Your task to perform on an android device: What's the weather going to be this weekend? Image 0: 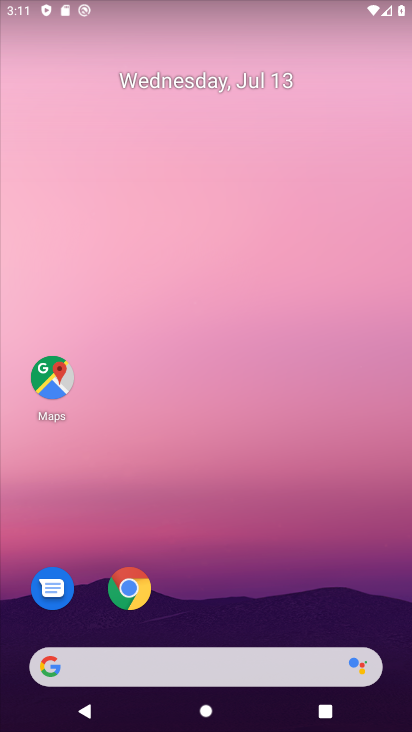
Step 0: drag from (309, 541) to (170, 169)
Your task to perform on an android device: What's the weather going to be this weekend? Image 1: 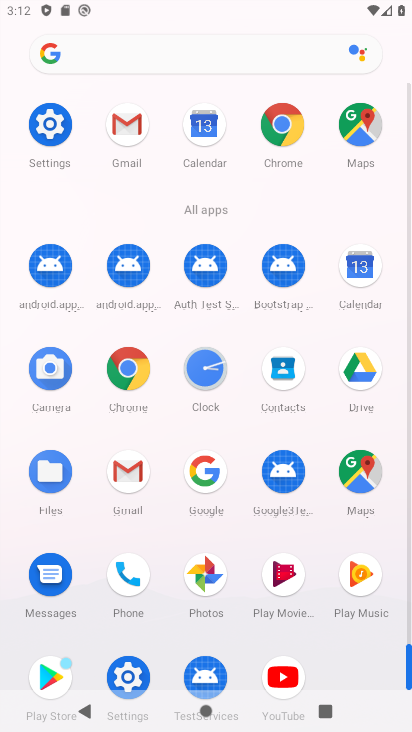
Step 1: click (275, 118)
Your task to perform on an android device: What's the weather going to be this weekend? Image 2: 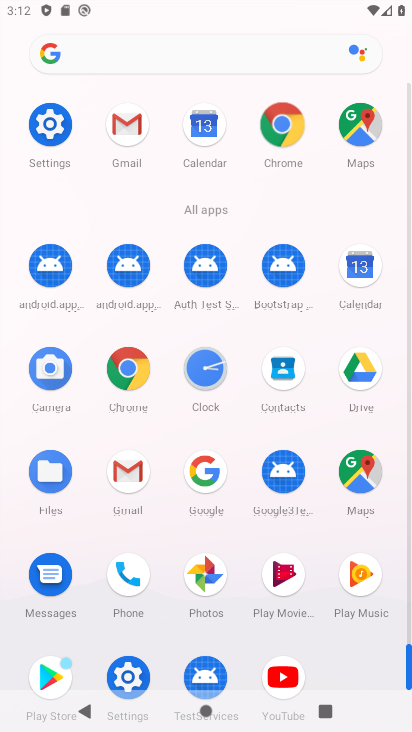
Step 2: click (282, 119)
Your task to perform on an android device: What's the weather going to be this weekend? Image 3: 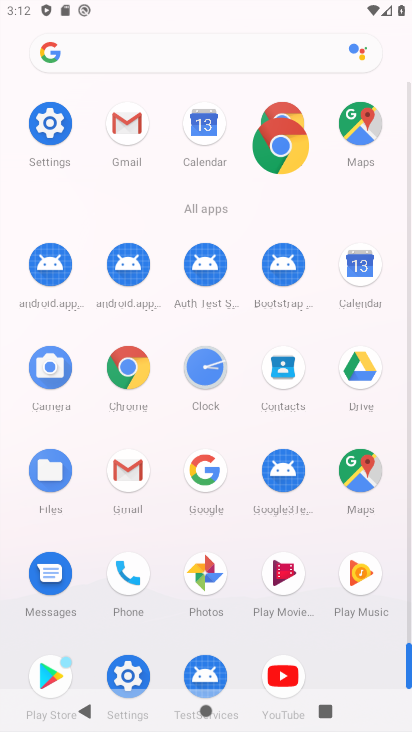
Step 3: click (282, 134)
Your task to perform on an android device: What's the weather going to be this weekend? Image 4: 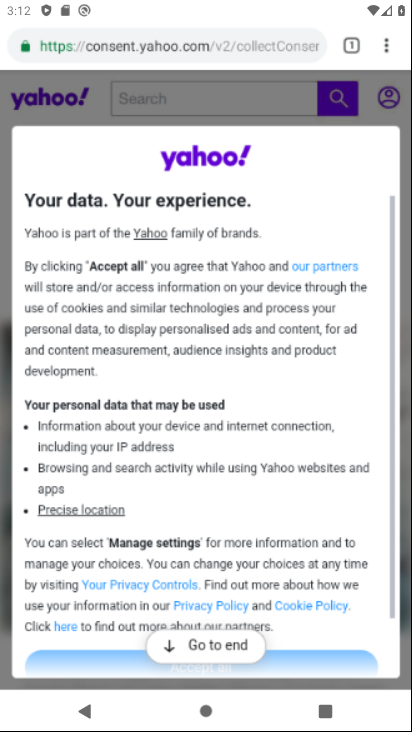
Step 4: click (283, 133)
Your task to perform on an android device: What's the weather going to be this weekend? Image 5: 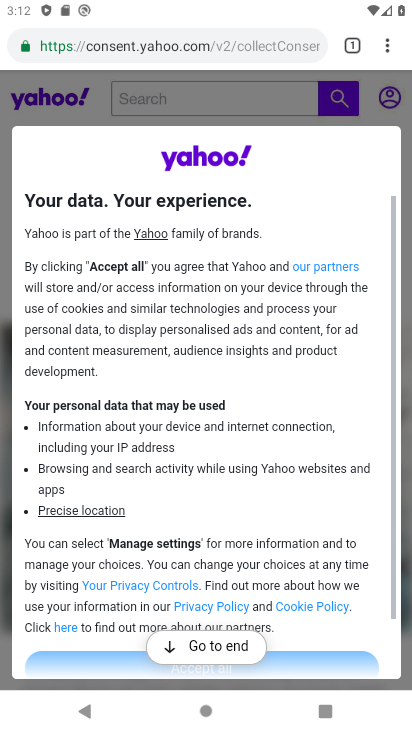
Step 5: drag from (384, 48) to (211, 87)
Your task to perform on an android device: What's the weather going to be this weekend? Image 6: 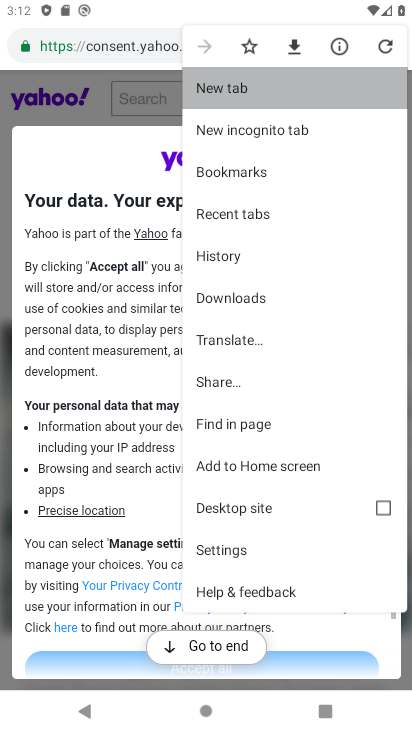
Step 6: click (212, 87)
Your task to perform on an android device: What's the weather going to be this weekend? Image 7: 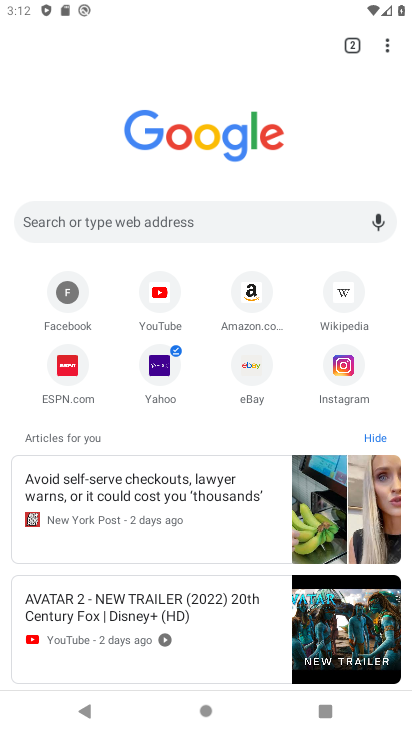
Step 7: click (145, 216)
Your task to perform on an android device: What's the weather going to be this weekend? Image 8: 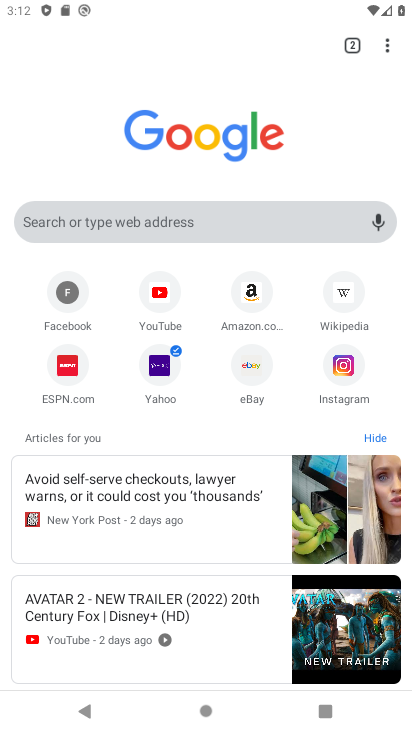
Step 8: click (143, 210)
Your task to perform on an android device: What's the weather going to be this weekend? Image 9: 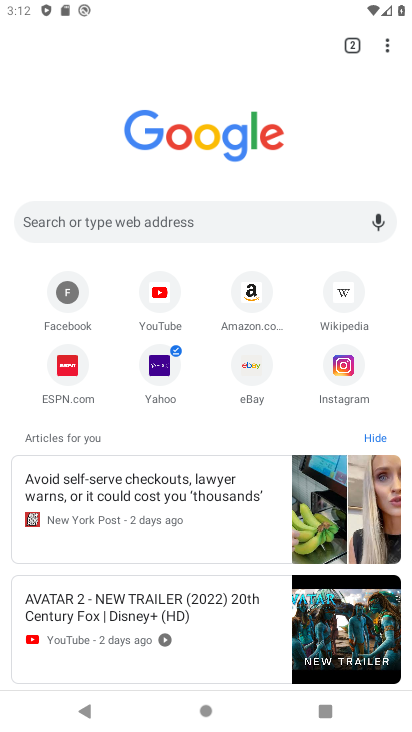
Step 9: type "what's the weathewr going to be this weekend"
Your task to perform on an android device: What's the weather going to be this weekend? Image 10: 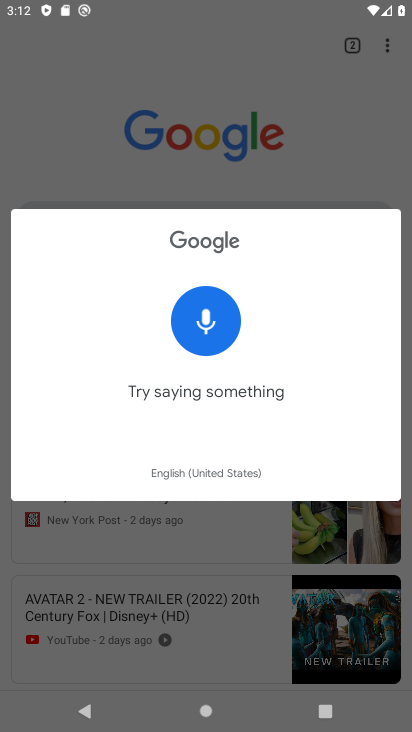
Step 10: click (56, 193)
Your task to perform on an android device: What's the weather going to be this weekend? Image 11: 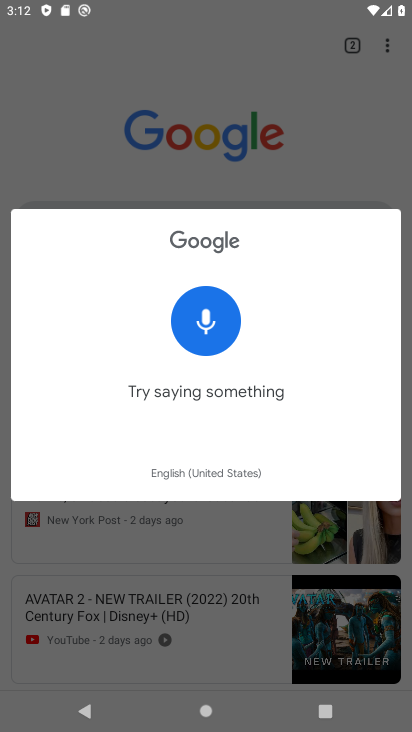
Step 11: click (56, 193)
Your task to perform on an android device: What's the weather going to be this weekend? Image 12: 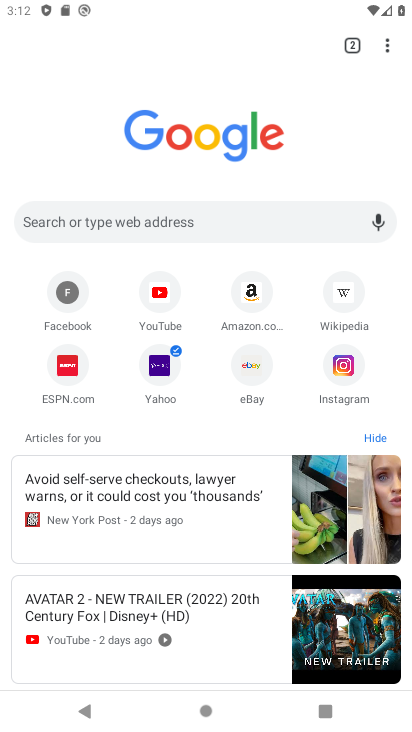
Step 12: click (95, 200)
Your task to perform on an android device: What's the weather going to be this weekend? Image 13: 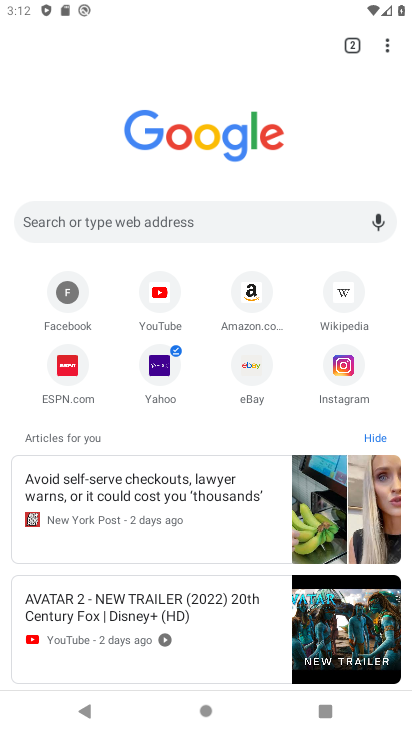
Step 13: click (118, 221)
Your task to perform on an android device: What's the weather going to be this weekend? Image 14: 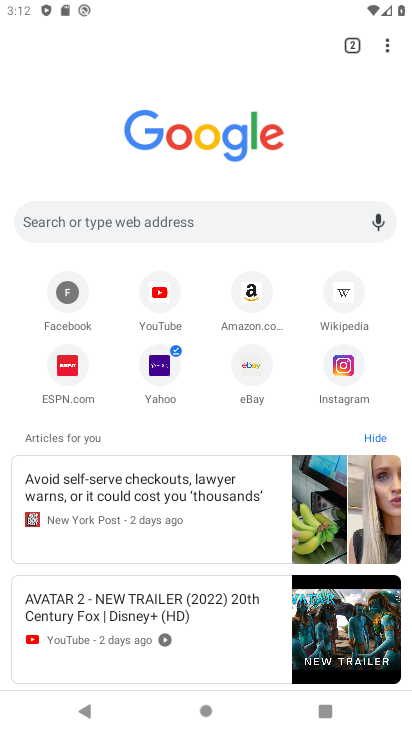
Step 14: click (118, 221)
Your task to perform on an android device: What's the weather going to be this weekend? Image 15: 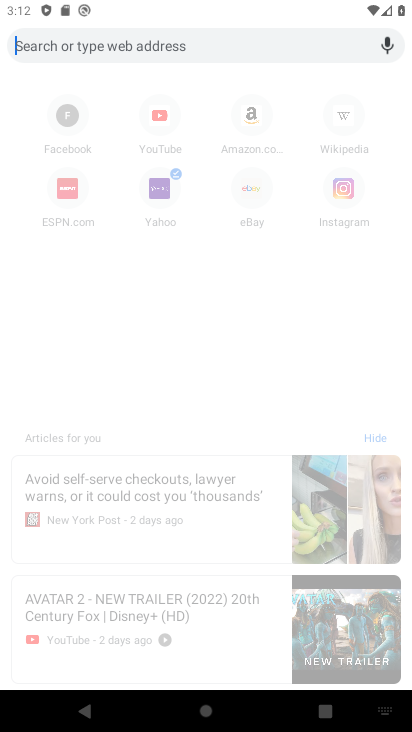
Step 15: type "weahther to be this weekend"
Your task to perform on an android device: What's the weather going to be this weekend? Image 16: 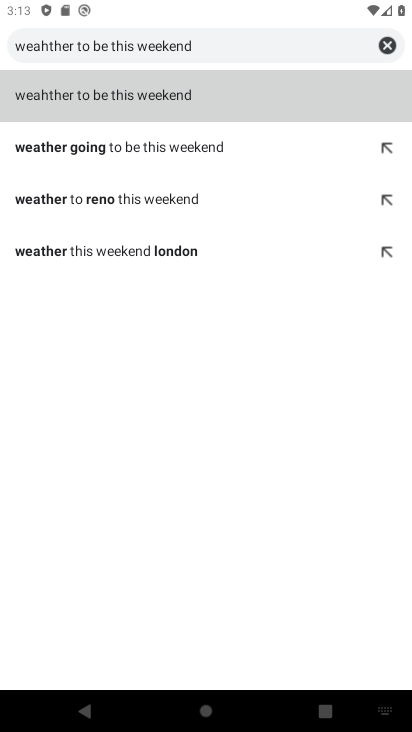
Step 16: click (182, 90)
Your task to perform on an android device: What's the weather going to be this weekend? Image 17: 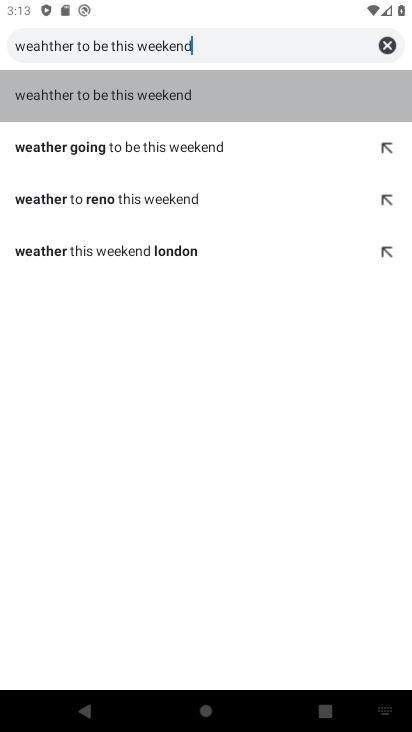
Step 17: click (182, 91)
Your task to perform on an android device: What's the weather going to be this weekend? Image 18: 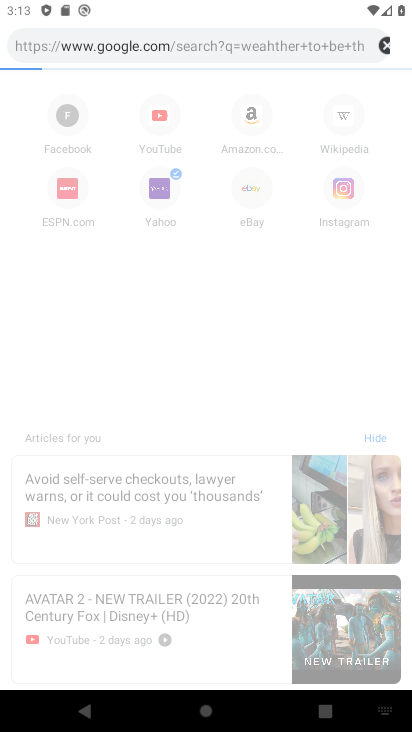
Step 18: click (185, 95)
Your task to perform on an android device: What's the weather going to be this weekend? Image 19: 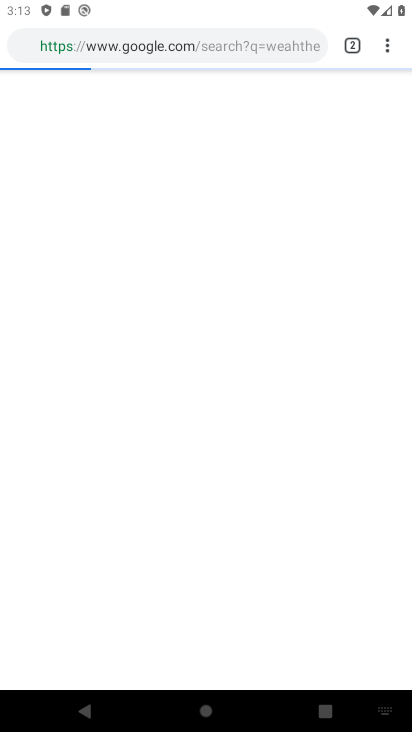
Step 19: click (185, 95)
Your task to perform on an android device: What's the weather going to be this weekend? Image 20: 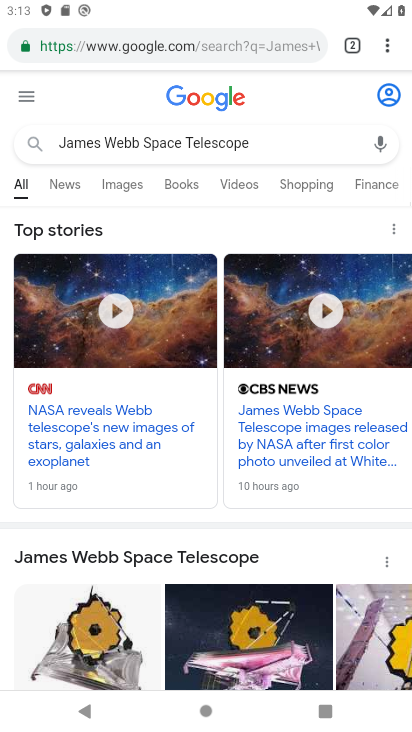
Step 20: task complete